Your task to perform on an android device: empty trash in the gmail app Image 0: 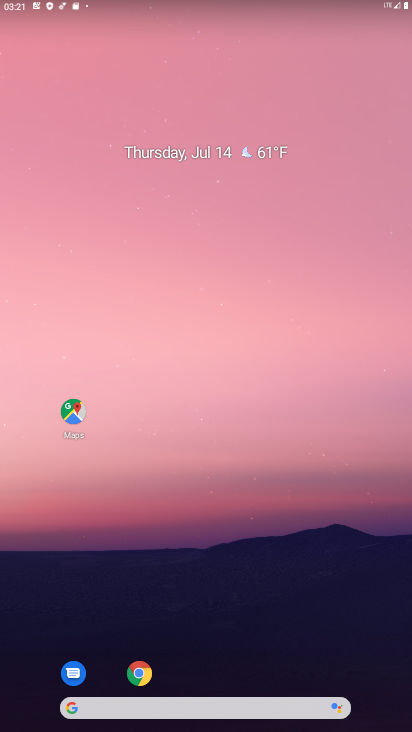
Step 0: drag from (274, 639) to (289, 171)
Your task to perform on an android device: empty trash in the gmail app Image 1: 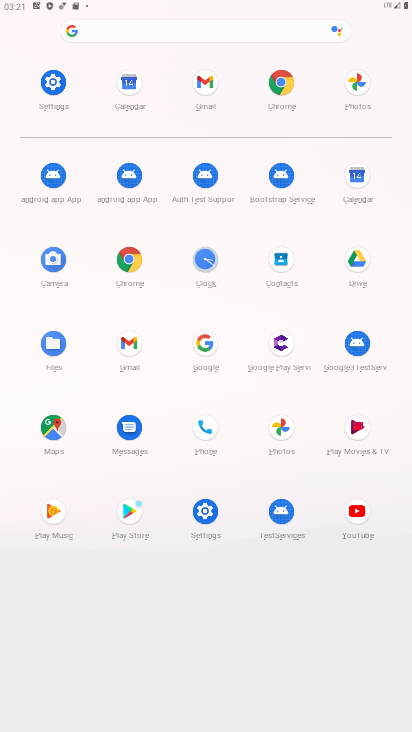
Step 1: click (208, 111)
Your task to perform on an android device: empty trash in the gmail app Image 2: 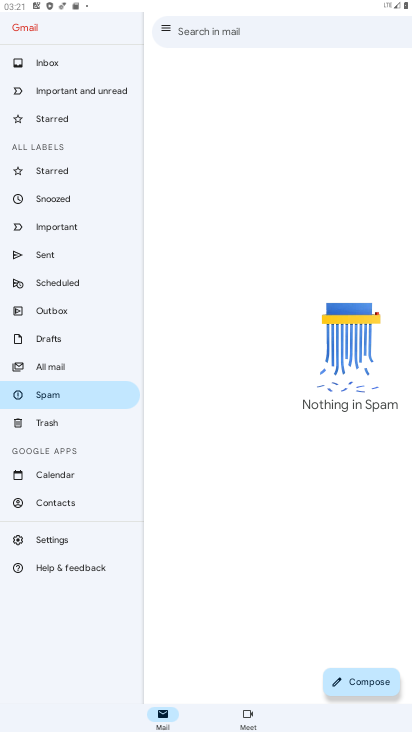
Step 2: click (52, 429)
Your task to perform on an android device: empty trash in the gmail app Image 3: 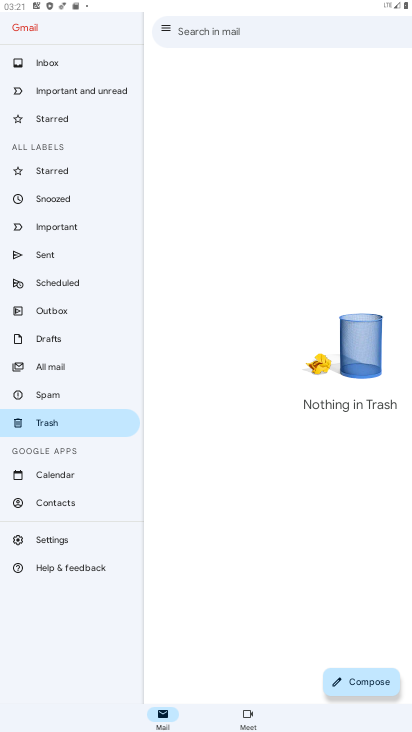
Step 3: task complete